Your task to perform on an android device: turn smart compose on in the gmail app Image 0: 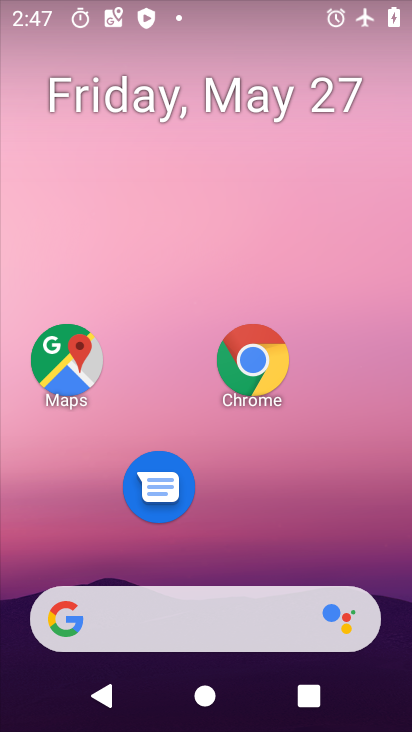
Step 0: drag from (276, 514) to (358, 39)
Your task to perform on an android device: turn smart compose on in the gmail app Image 1: 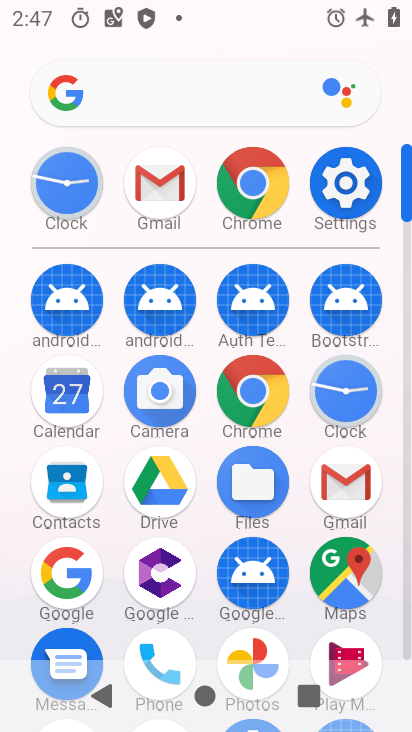
Step 1: click (347, 480)
Your task to perform on an android device: turn smart compose on in the gmail app Image 2: 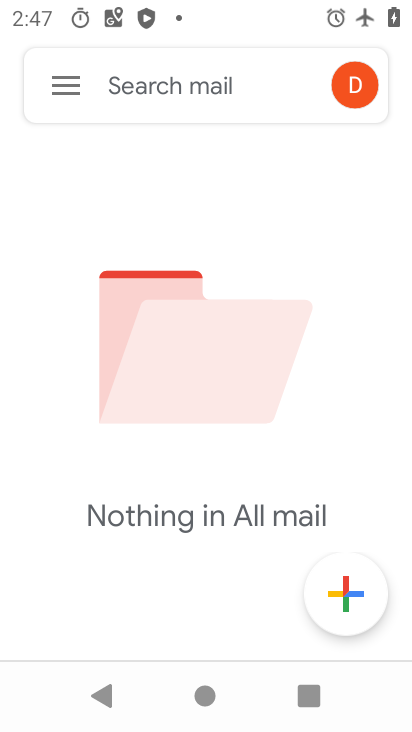
Step 2: click (68, 83)
Your task to perform on an android device: turn smart compose on in the gmail app Image 3: 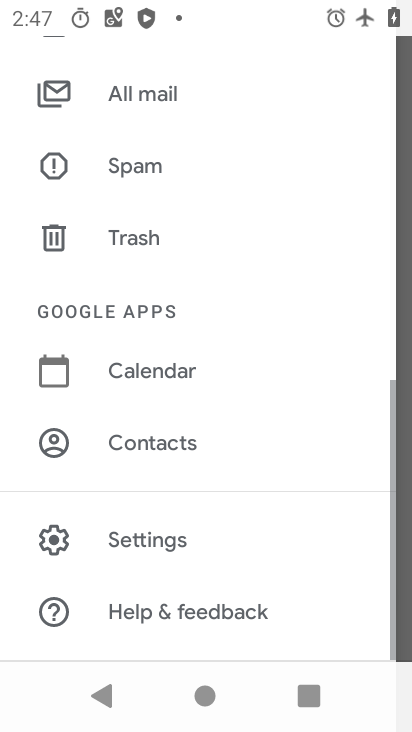
Step 3: click (156, 529)
Your task to perform on an android device: turn smart compose on in the gmail app Image 4: 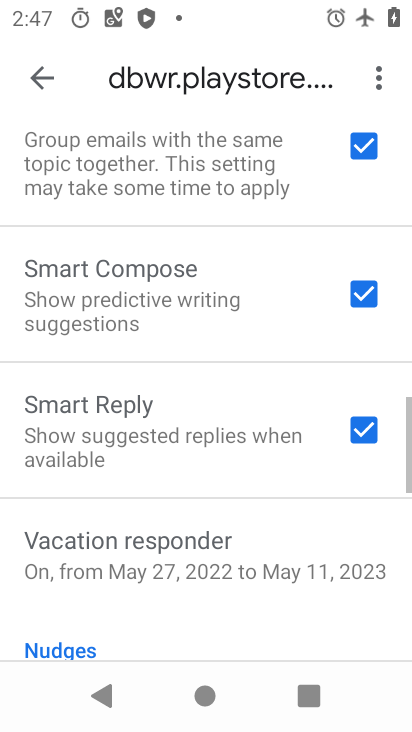
Step 4: task complete